Your task to perform on an android device: turn on airplane mode Image 0: 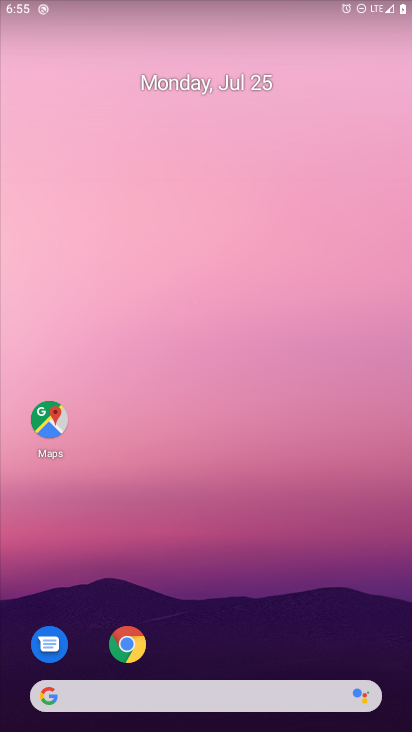
Step 0: press home button
Your task to perform on an android device: turn on airplane mode Image 1: 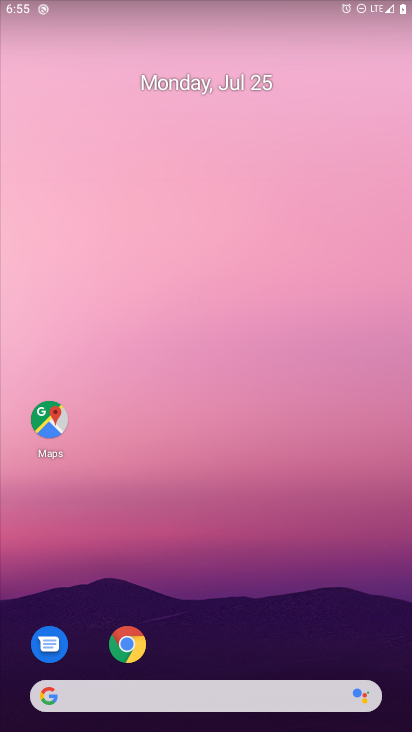
Step 1: drag from (230, 95) to (237, 514)
Your task to perform on an android device: turn on airplane mode Image 2: 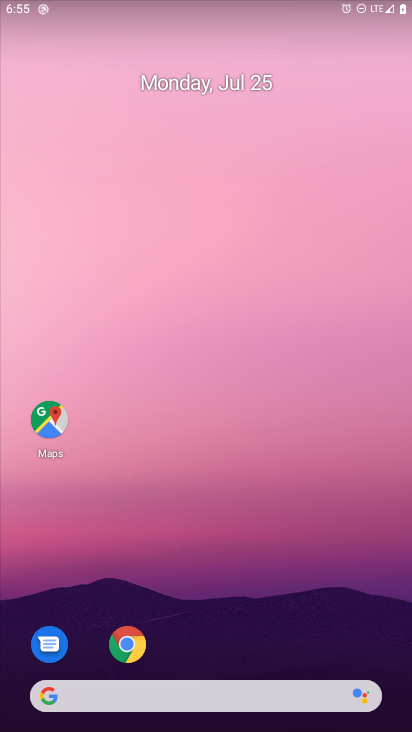
Step 2: drag from (269, 12) to (176, 409)
Your task to perform on an android device: turn on airplane mode Image 3: 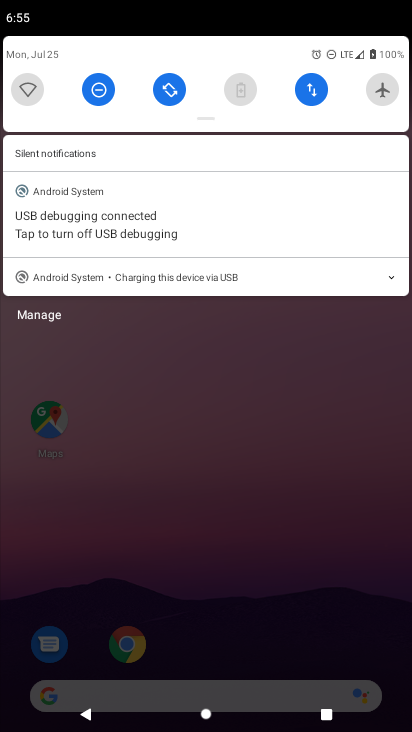
Step 3: click (376, 94)
Your task to perform on an android device: turn on airplane mode Image 4: 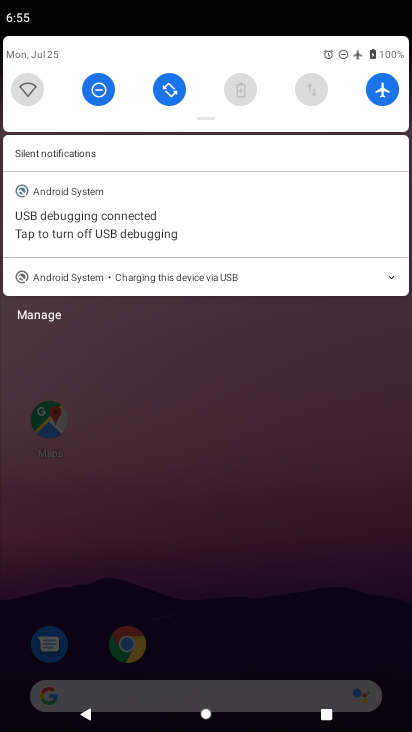
Step 4: task complete